Your task to perform on an android device: What's on my calendar today? Image 0: 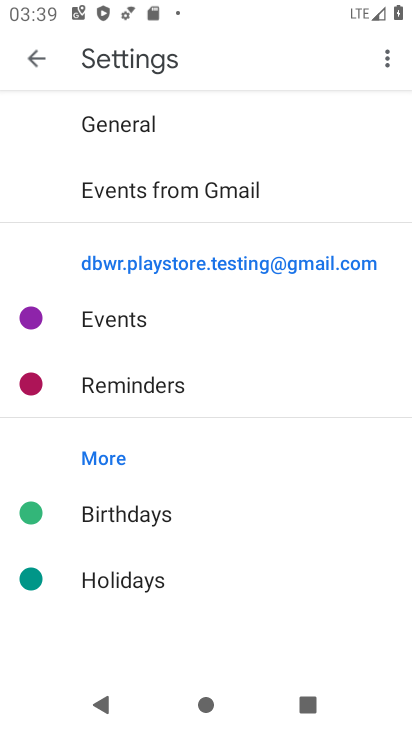
Step 0: press home button
Your task to perform on an android device: What's on my calendar today? Image 1: 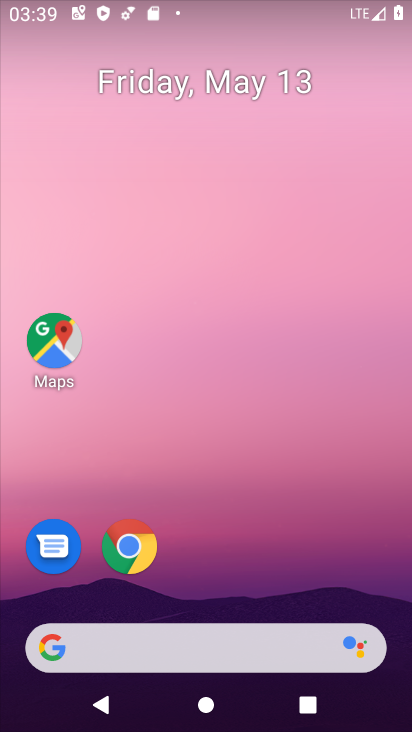
Step 1: click (210, 84)
Your task to perform on an android device: What's on my calendar today? Image 2: 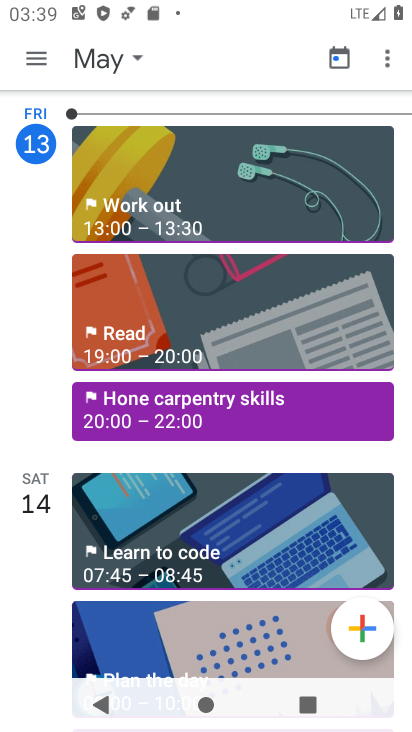
Step 2: task complete